Your task to perform on an android device: turn on sleep mode Image 0: 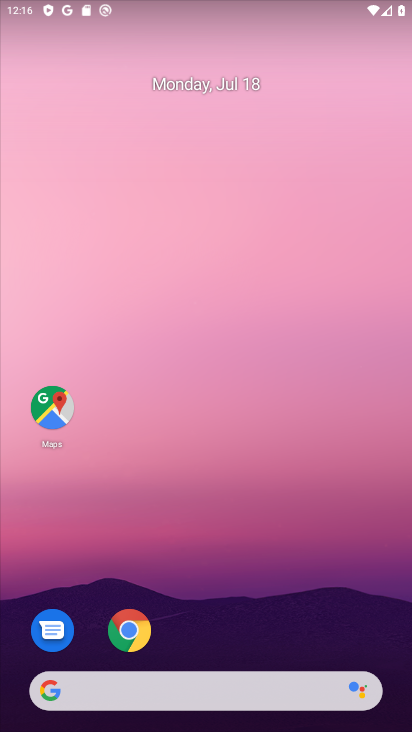
Step 0: drag from (165, 657) to (227, 86)
Your task to perform on an android device: turn on sleep mode Image 1: 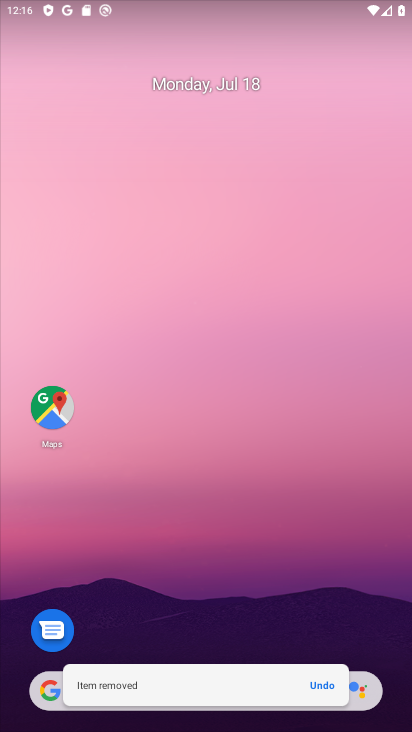
Step 1: drag from (286, 627) to (312, 85)
Your task to perform on an android device: turn on sleep mode Image 2: 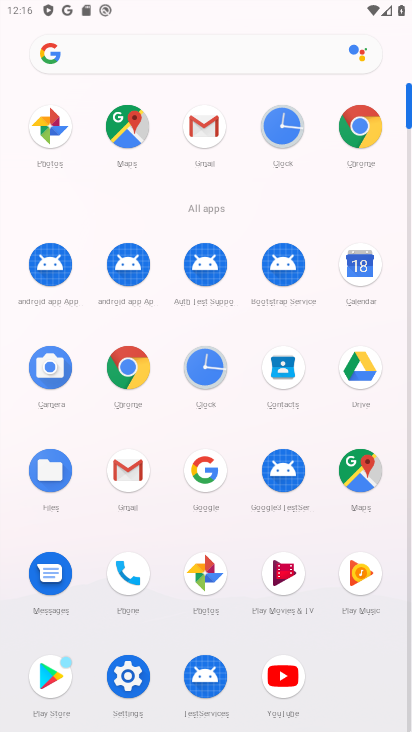
Step 2: click (135, 684)
Your task to perform on an android device: turn on sleep mode Image 3: 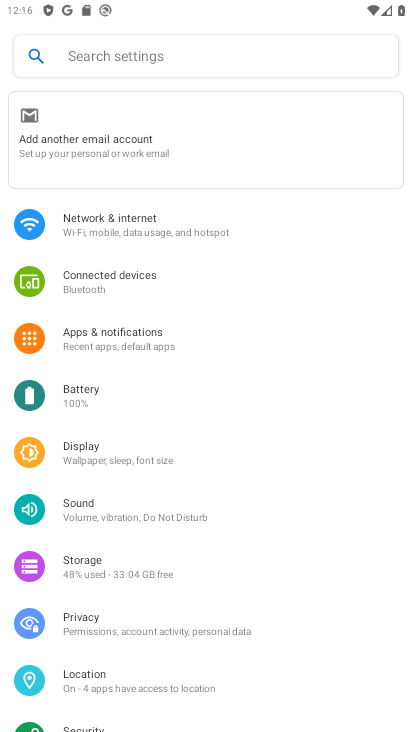
Step 3: click (128, 460)
Your task to perform on an android device: turn on sleep mode Image 4: 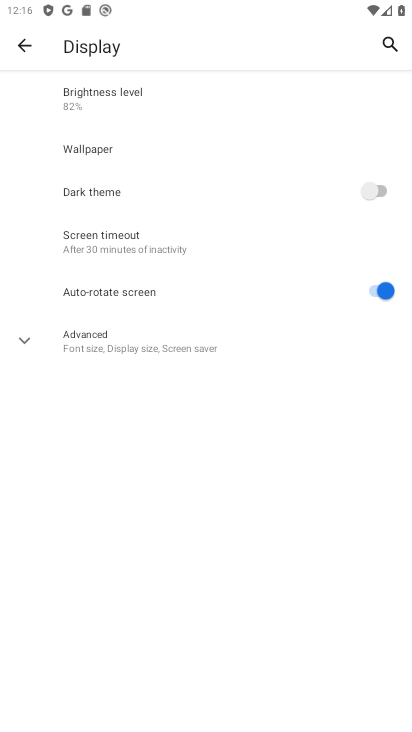
Step 4: task complete